Your task to perform on an android device: Go to sound settings Image 0: 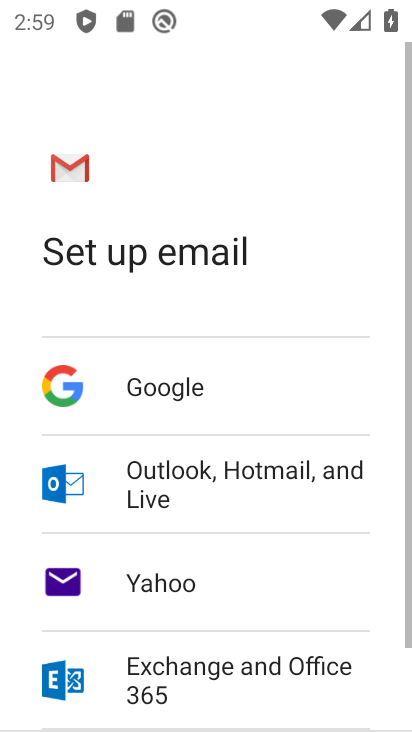
Step 0: press home button
Your task to perform on an android device: Go to sound settings Image 1: 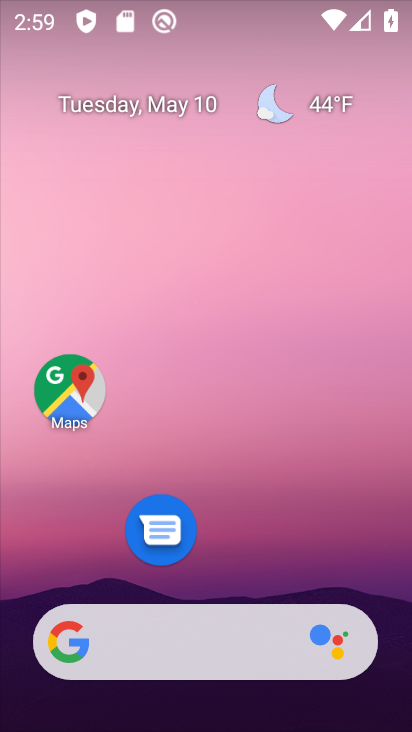
Step 1: drag from (243, 568) to (244, 80)
Your task to perform on an android device: Go to sound settings Image 2: 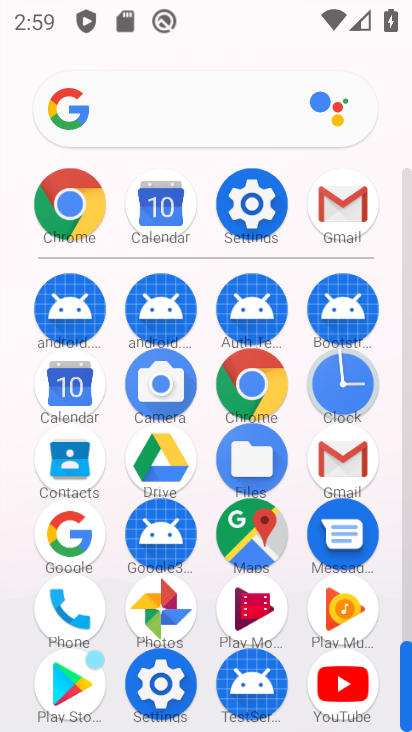
Step 2: click (253, 203)
Your task to perform on an android device: Go to sound settings Image 3: 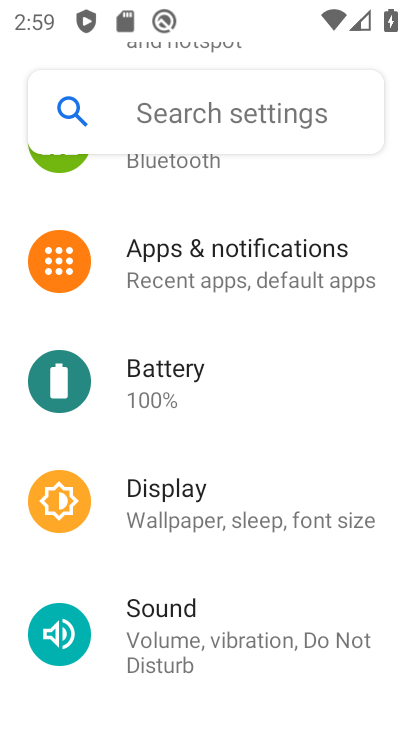
Step 3: click (169, 643)
Your task to perform on an android device: Go to sound settings Image 4: 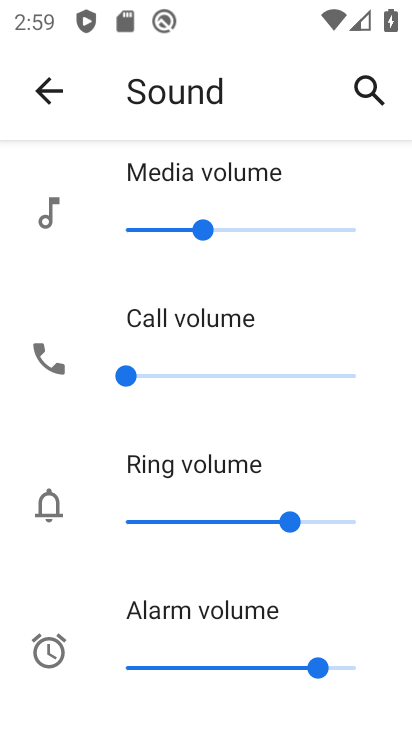
Step 4: task complete